Your task to perform on an android device: toggle location history Image 0: 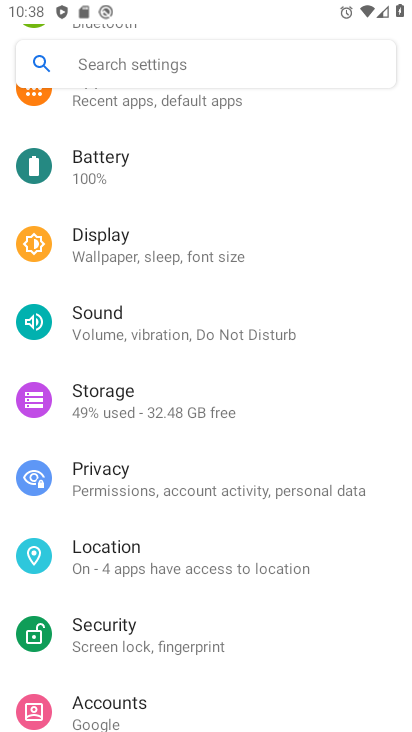
Step 0: press home button
Your task to perform on an android device: toggle location history Image 1: 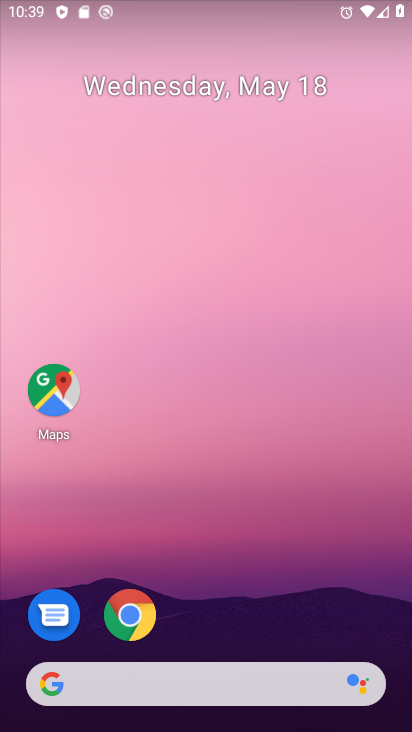
Step 1: press home button
Your task to perform on an android device: toggle location history Image 2: 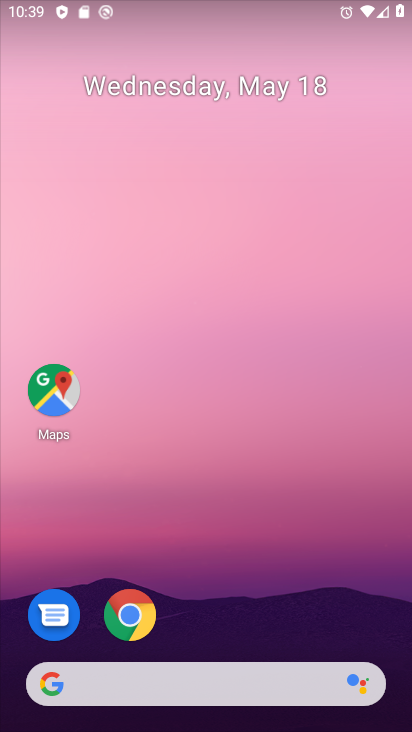
Step 2: click (187, 105)
Your task to perform on an android device: toggle location history Image 3: 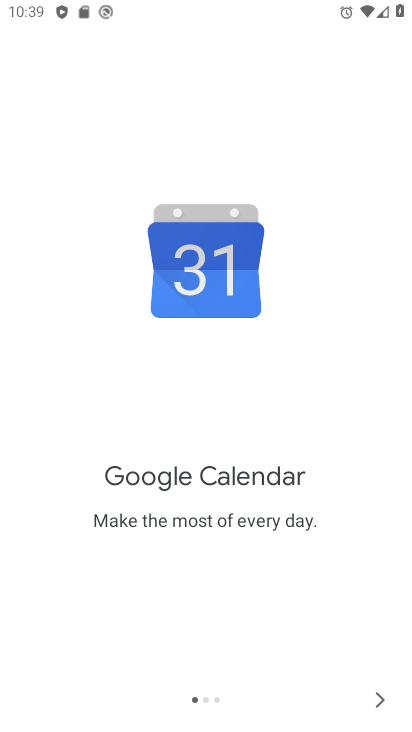
Step 3: drag from (179, 615) to (176, 341)
Your task to perform on an android device: toggle location history Image 4: 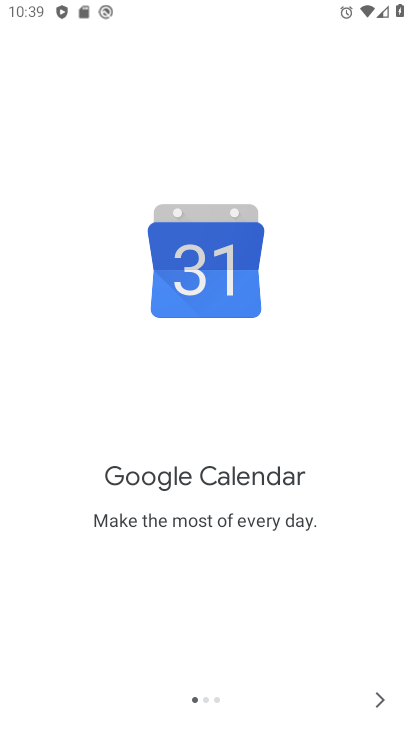
Step 4: press home button
Your task to perform on an android device: toggle location history Image 5: 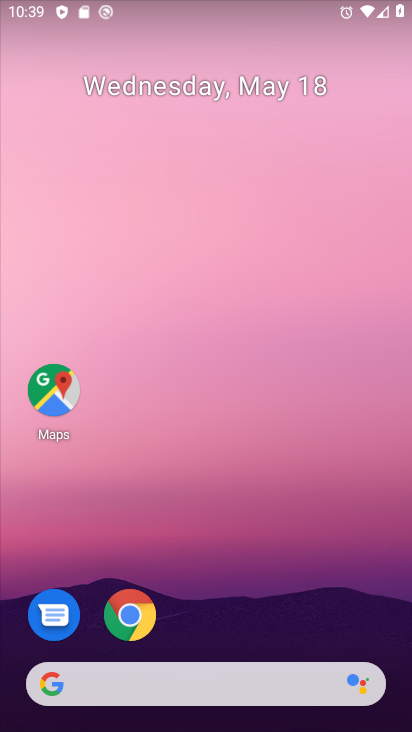
Step 5: drag from (191, 590) to (191, 307)
Your task to perform on an android device: toggle location history Image 6: 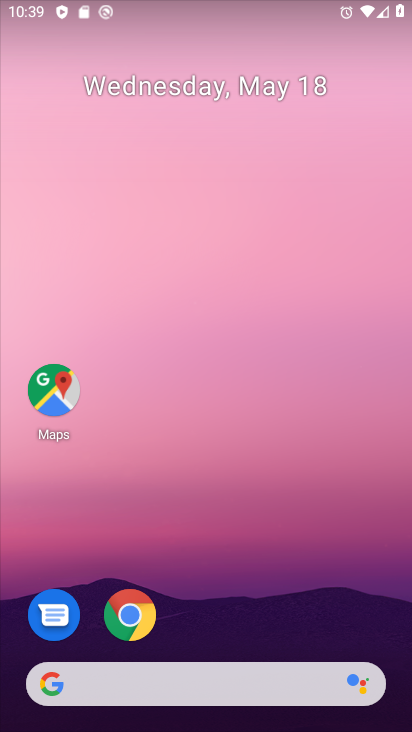
Step 6: drag from (220, 662) to (205, 100)
Your task to perform on an android device: toggle location history Image 7: 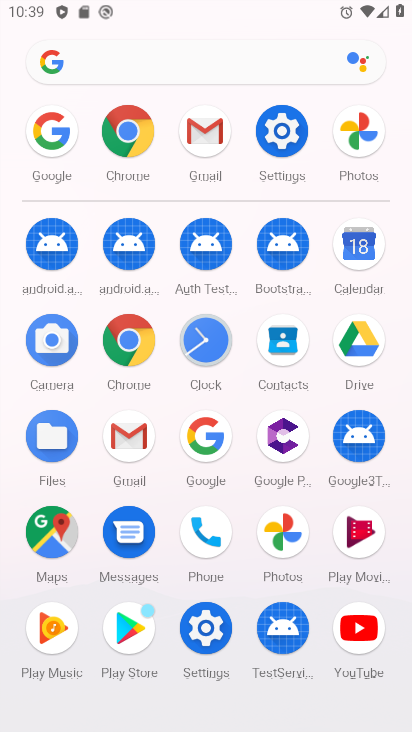
Step 7: click (285, 124)
Your task to perform on an android device: toggle location history Image 8: 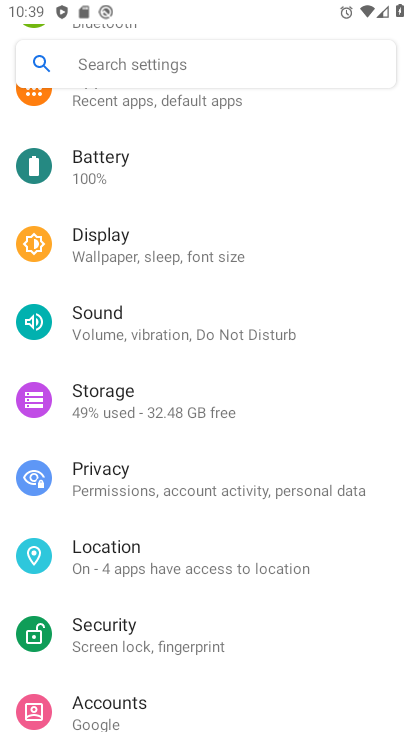
Step 8: drag from (182, 612) to (182, 167)
Your task to perform on an android device: toggle location history Image 9: 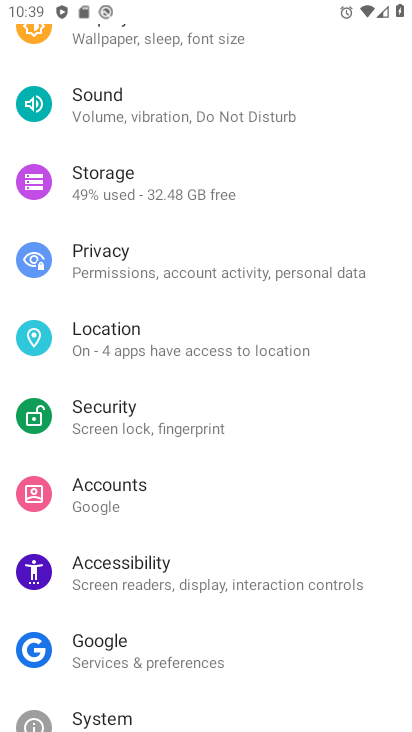
Step 9: click (128, 344)
Your task to perform on an android device: toggle location history Image 10: 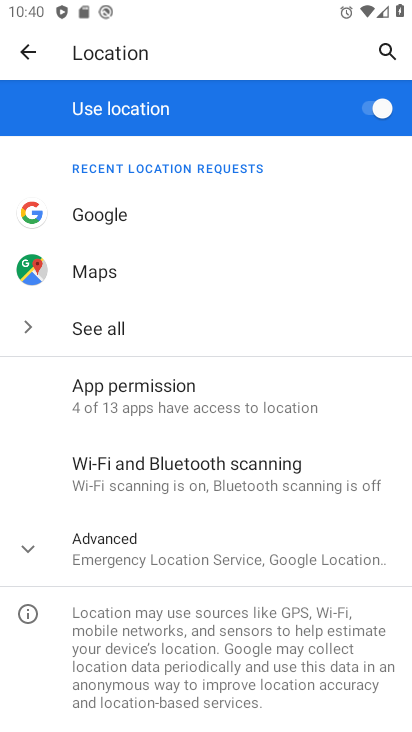
Step 10: click (89, 325)
Your task to perform on an android device: toggle location history Image 11: 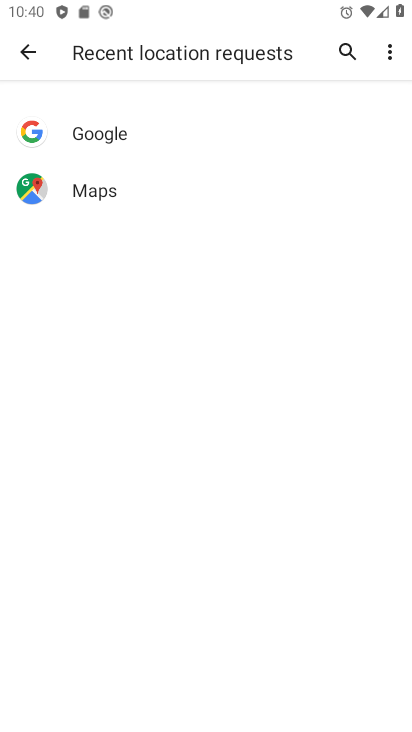
Step 11: click (24, 51)
Your task to perform on an android device: toggle location history Image 12: 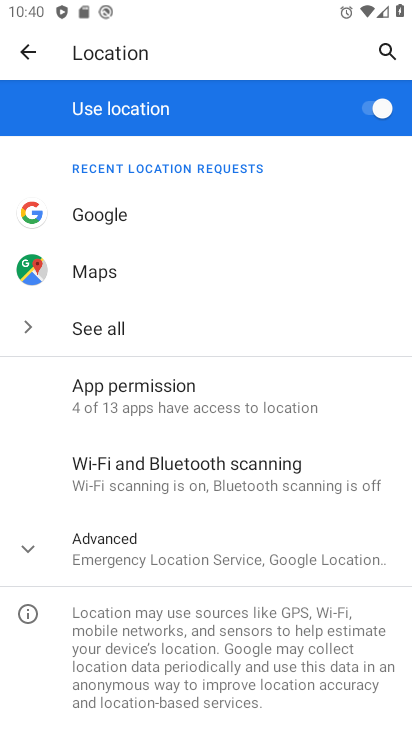
Step 12: click (105, 390)
Your task to perform on an android device: toggle location history Image 13: 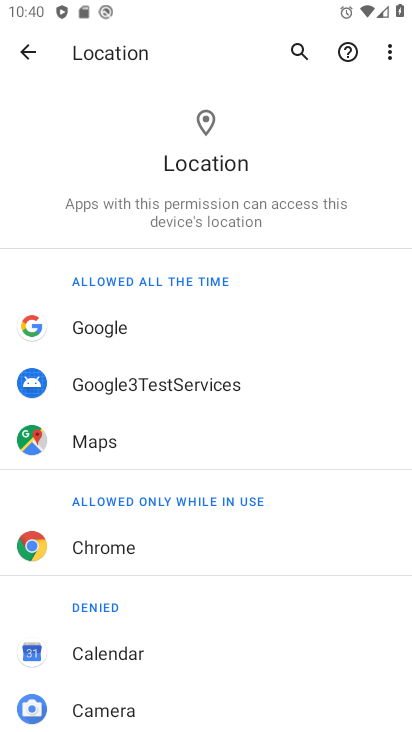
Step 13: drag from (198, 724) to (226, 391)
Your task to perform on an android device: toggle location history Image 14: 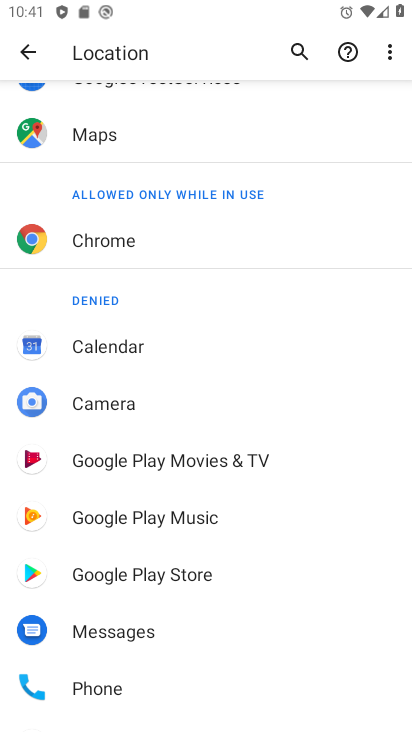
Step 14: drag from (213, 664) to (212, 334)
Your task to perform on an android device: toggle location history Image 15: 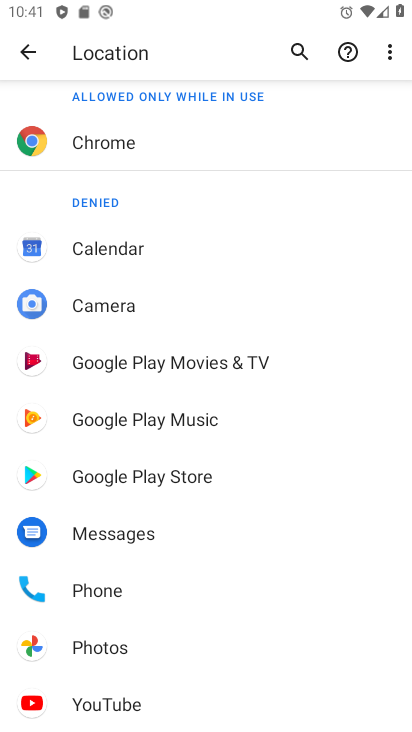
Step 15: click (36, 56)
Your task to perform on an android device: toggle location history Image 16: 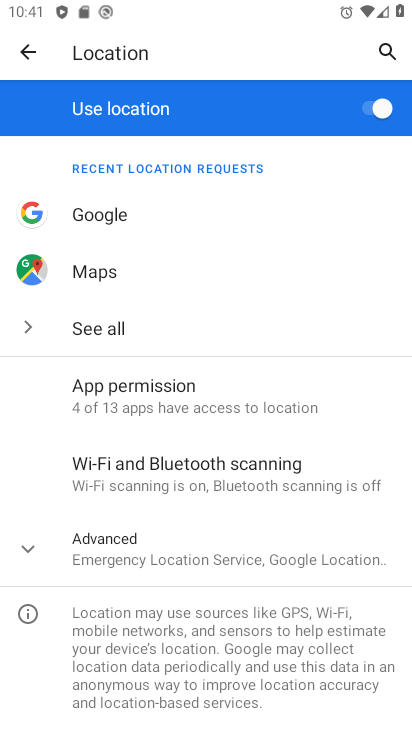
Step 16: click (176, 557)
Your task to perform on an android device: toggle location history Image 17: 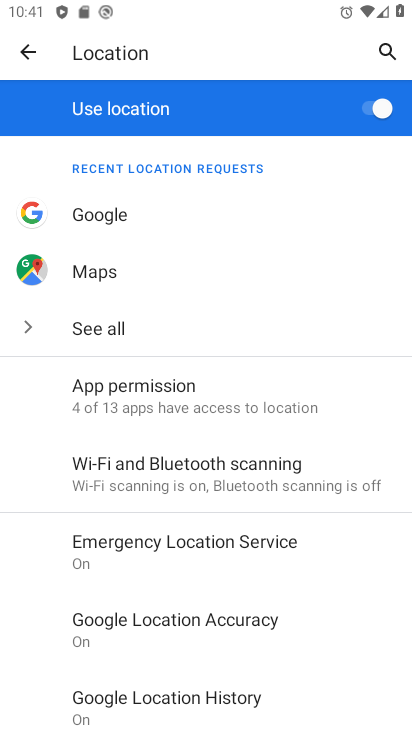
Step 17: drag from (204, 701) to (258, 376)
Your task to perform on an android device: toggle location history Image 18: 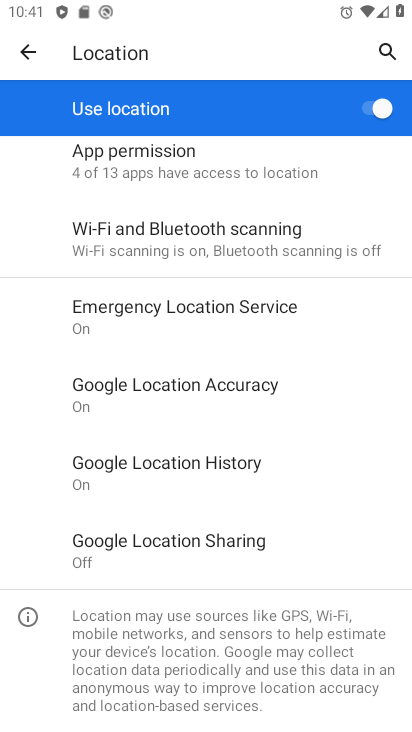
Step 18: click (175, 465)
Your task to perform on an android device: toggle location history Image 19: 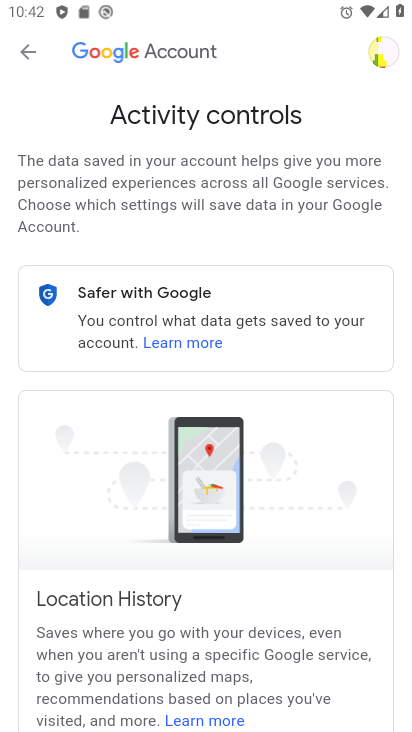
Step 19: drag from (327, 682) to (319, 416)
Your task to perform on an android device: toggle location history Image 20: 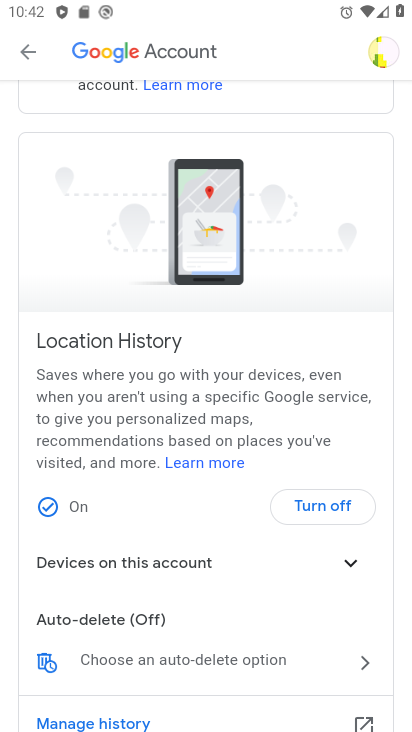
Step 20: click (307, 503)
Your task to perform on an android device: toggle location history Image 21: 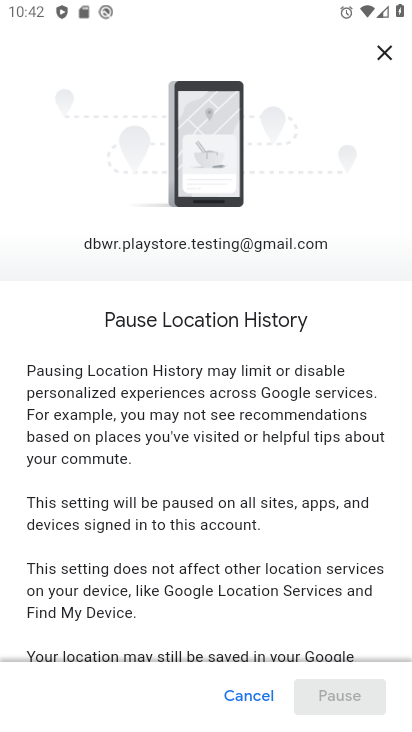
Step 21: drag from (296, 648) to (287, 273)
Your task to perform on an android device: toggle location history Image 22: 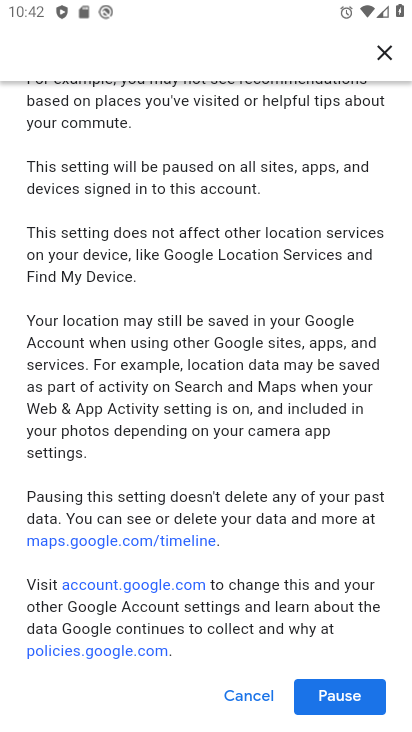
Step 22: click (342, 706)
Your task to perform on an android device: toggle location history Image 23: 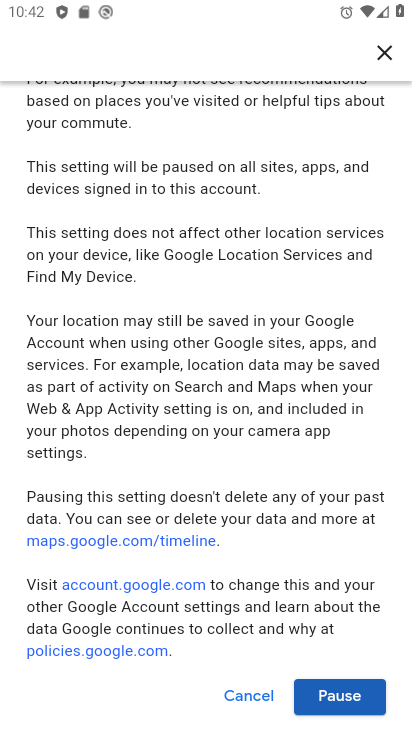
Step 23: click (343, 706)
Your task to perform on an android device: toggle location history Image 24: 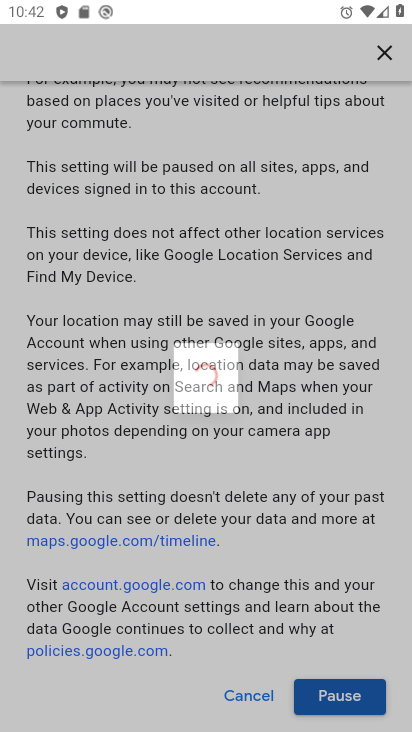
Step 24: click (343, 701)
Your task to perform on an android device: toggle location history Image 25: 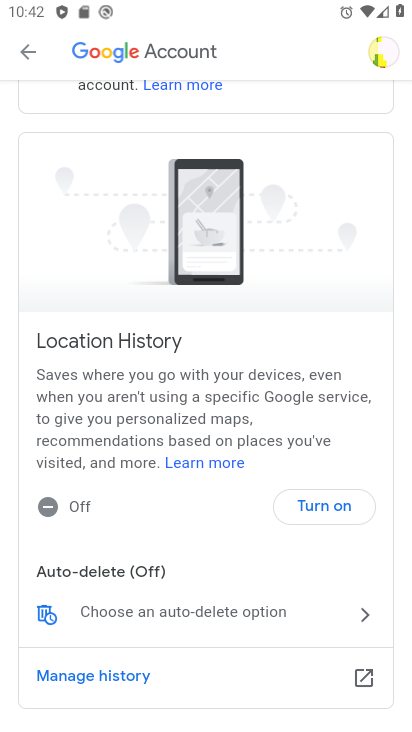
Step 25: task complete